Your task to perform on an android device: turn off notifications in google photos Image 0: 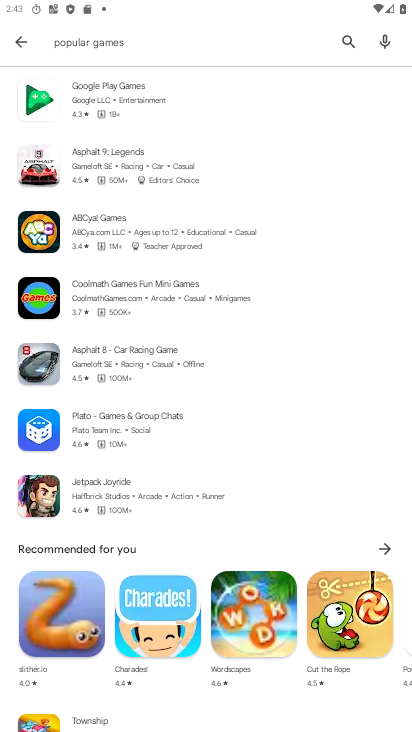
Step 0: press home button
Your task to perform on an android device: turn off notifications in google photos Image 1: 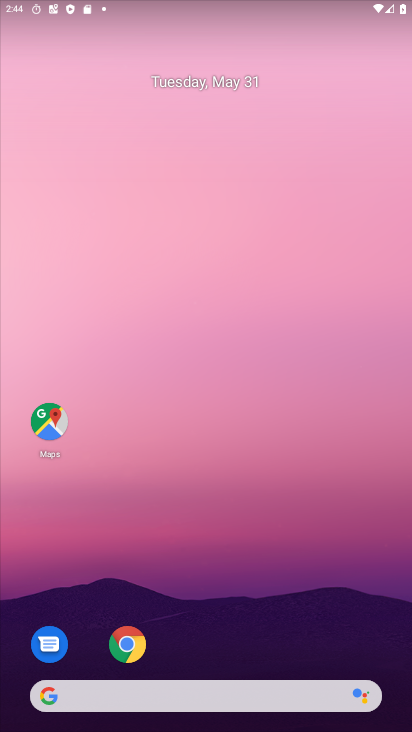
Step 1: drag from (389, 714) to (343, 266)
Your task to perform on an android device: turn off notifications in google photos Image 2: 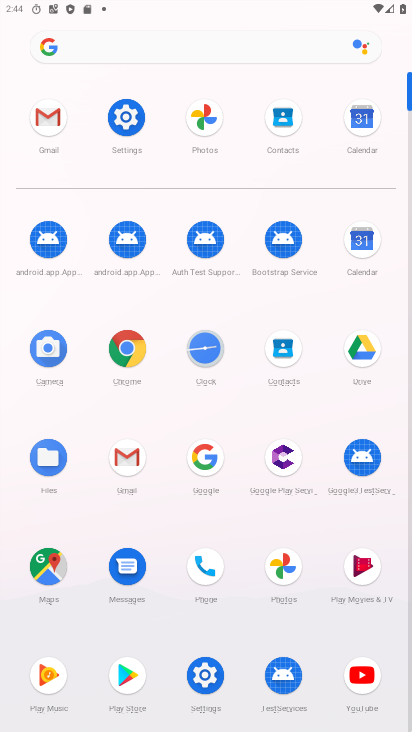
Step 2: click (264, 571)
Your task to perform on an android device: turn off notifications in google photos Image 3: 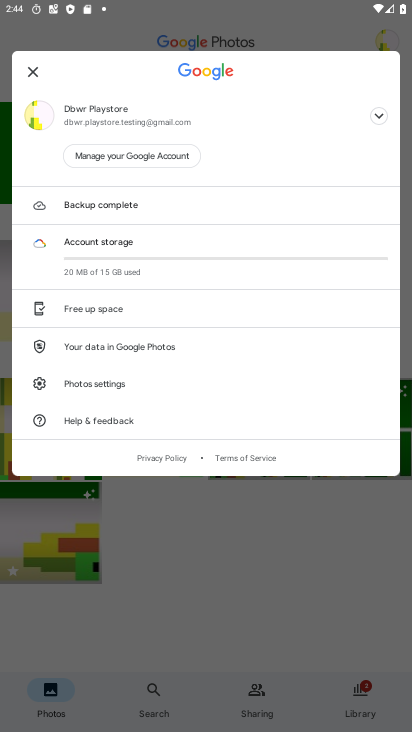
Step 3: click (35, 68)
Your task to perform on an android device: turn off notifications in google photos Image 4: 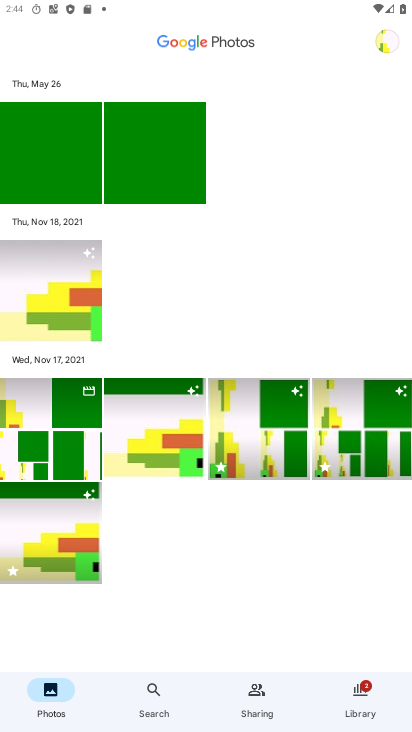
Step 4: task complete